Your task to perform on an android device: toggle javascript in the chrome app Image 0: 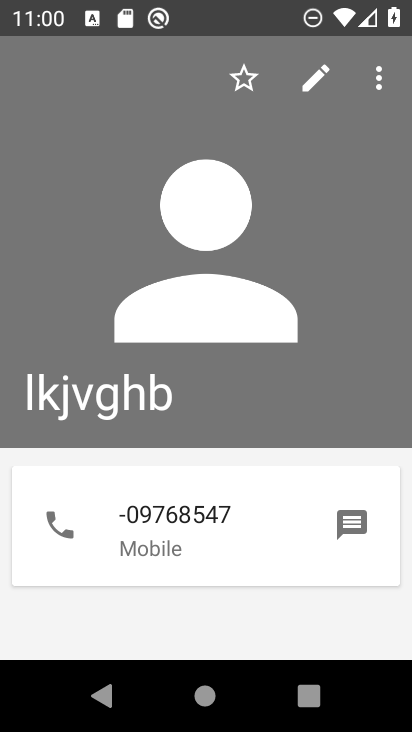
Step 0: press home button
Your task to perform on an android device: toggle javascript in the chrome app Image 1: 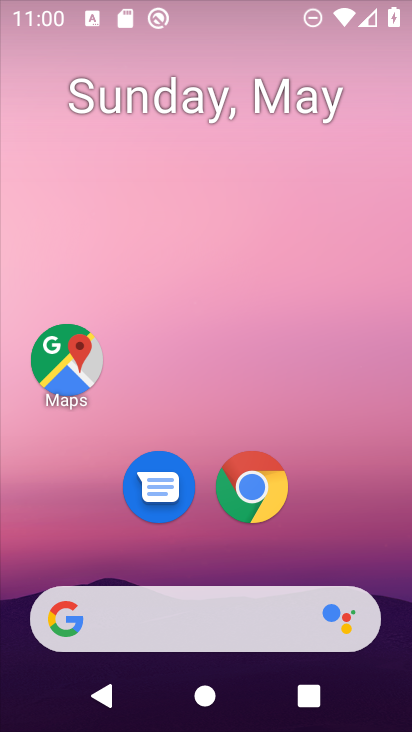
Step 1: drag from (221, 623) to (233, 31)
Your task to perform on an android device: toggle javascript in the chrome app Image 2: 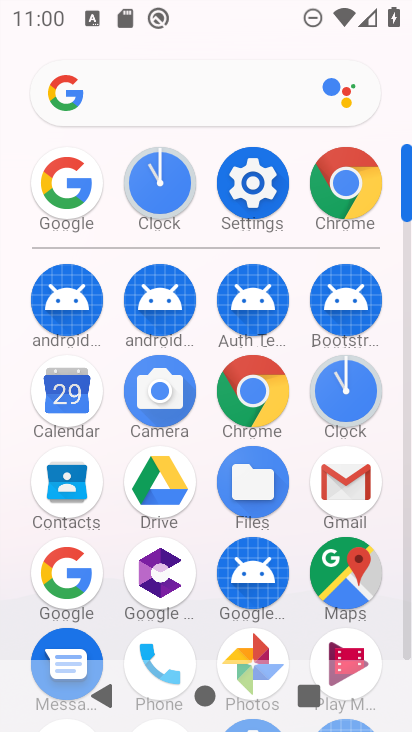
Step 2: click (266, 397)
Your task to perform on an android device: toggle javascript in the chrome app Image 3: 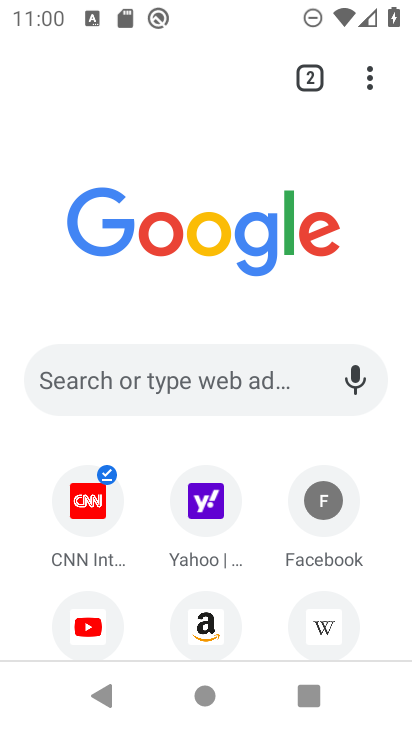
Step 3: click (365, 84)
Your task to perform on an android device: toggle javascript in the chrome app Image 4: 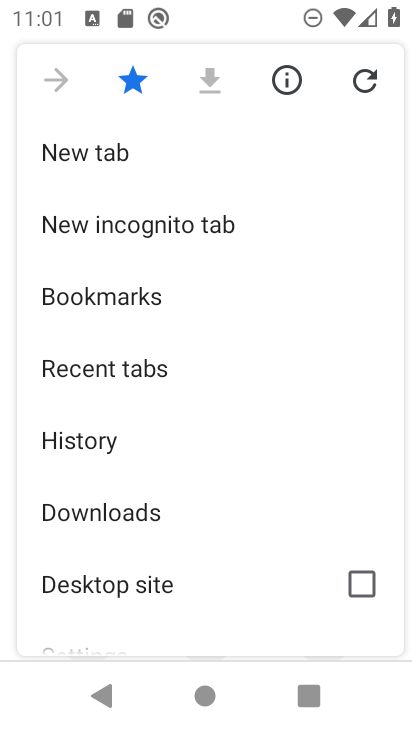
Step 4: drag from (186, 504) to (188, 370)
Your task to perform on an android device: toggle javascript in the chrome app Image 5: 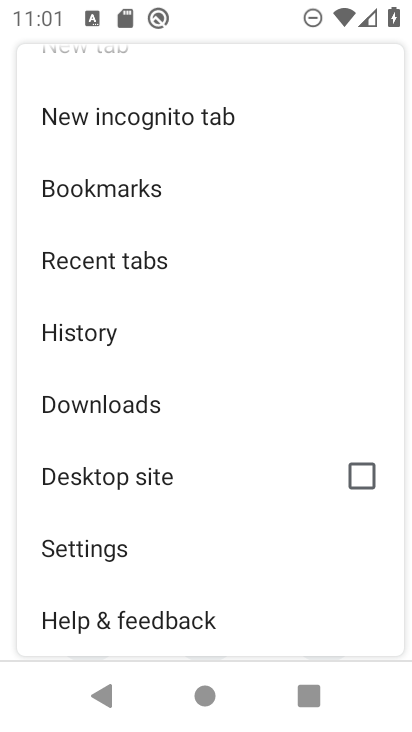
Step 5: click (126, 550)
Your task to perform on an android device: toggle javascript in the chrome app Image 6: 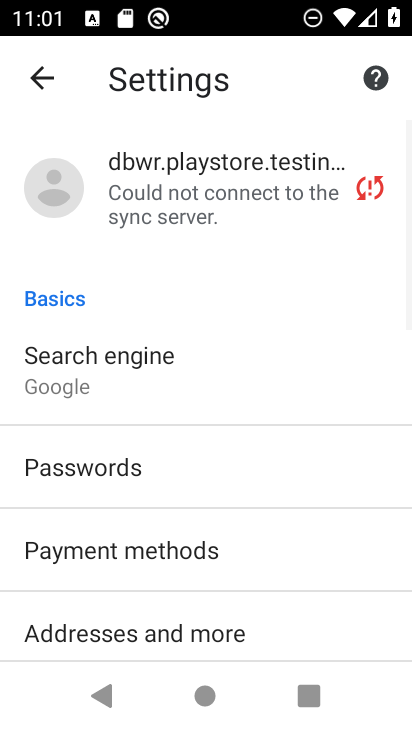
Step 6: drag from (126, 550) to (180, 248)
Your task to perform on an android device: toggle javascript in the chrome app Image 7: 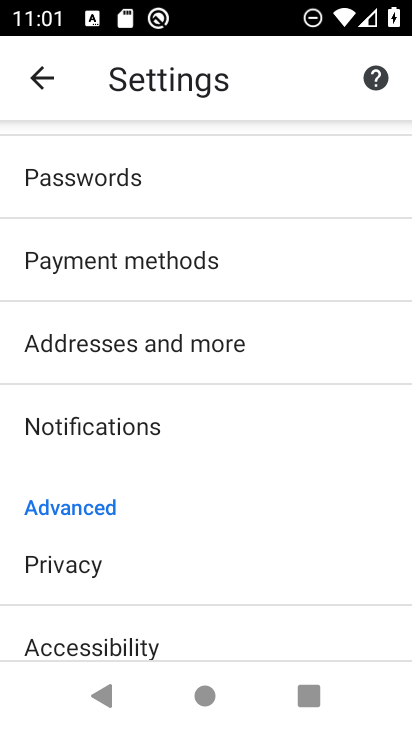
Step 7: drag from (113, 593) to (121, 446)
Your task to perform on an android device: toggle javascript in the chrome app Image 8: 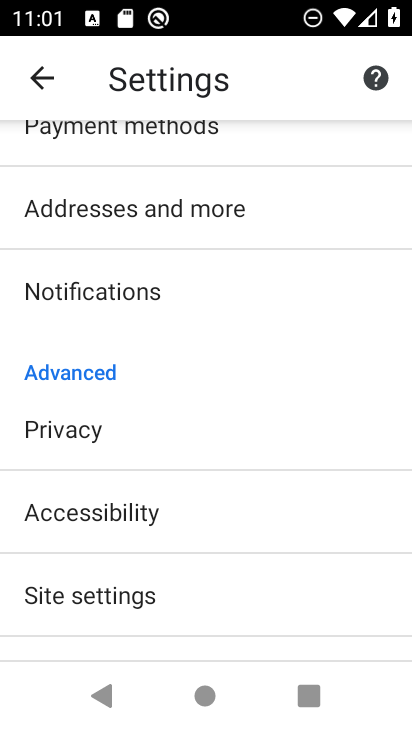
Step 8: click (79, 591)
Your task to perform on an android device: toggle javascript in the chrome app Image 9: 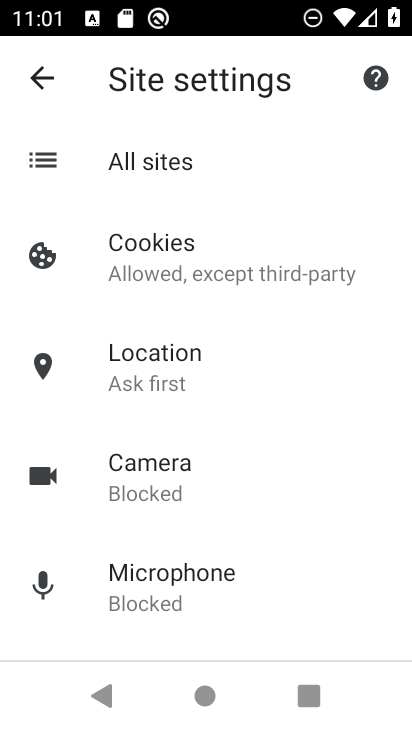
Step 9: drag from (264, 543) to (241, 269)
Your task to perform on an android device: toggle javascript in the chrome app Image 10: 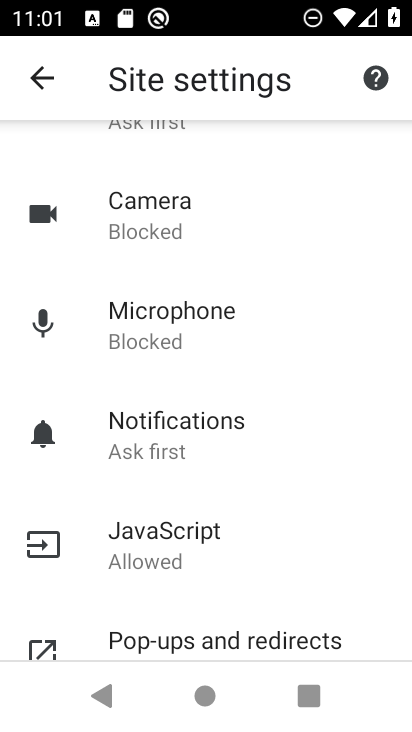
Step 10: click (169, 514)
Your task to perform on an android device: toggle javascript in the chrome app Image 11: 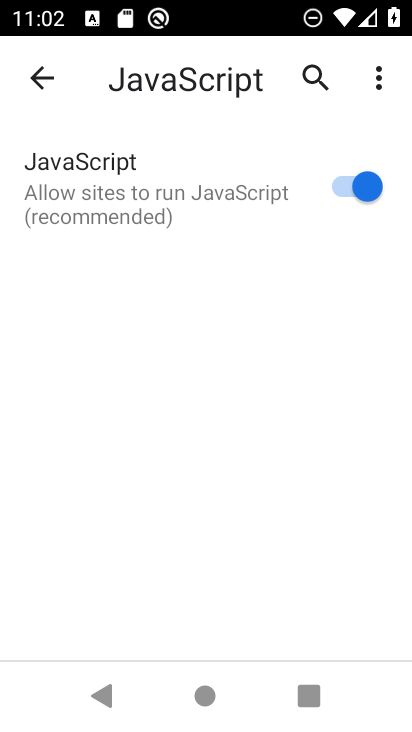
Step 11: click (335, 180)
Your task to perform on an android device: toggle javascript in the chrome app Image 12: 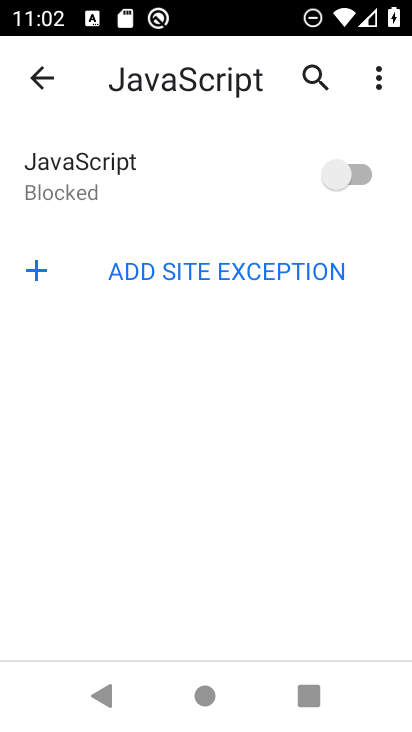
Step 12: task complete